Your task to perform on an android device: turn smart compose on in the gmail app Image 0: 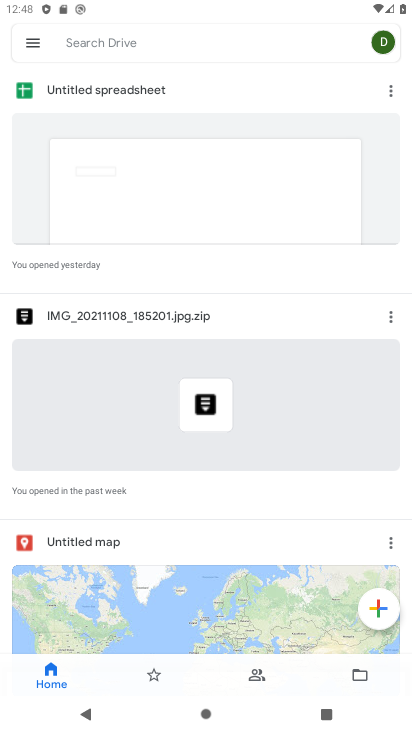
Step 0: press home button
Your task to perform on an android device: turn smart compose on in the gmail app Image 1: 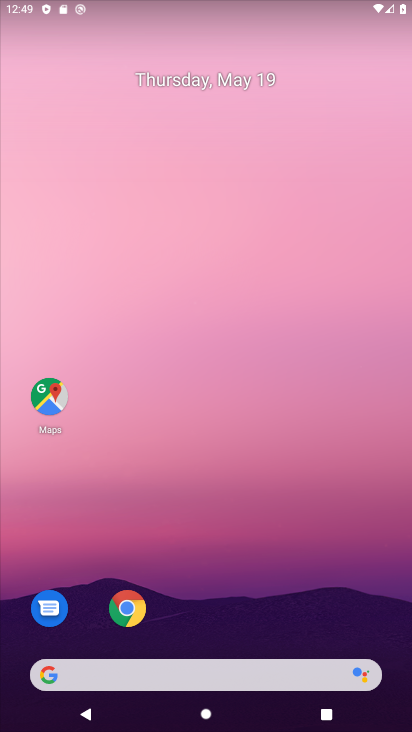
Step 1: drag from (212, 566) to (320, 13)
Your task to perform on an android device: turn smart compose on in the gmail app Image 2: 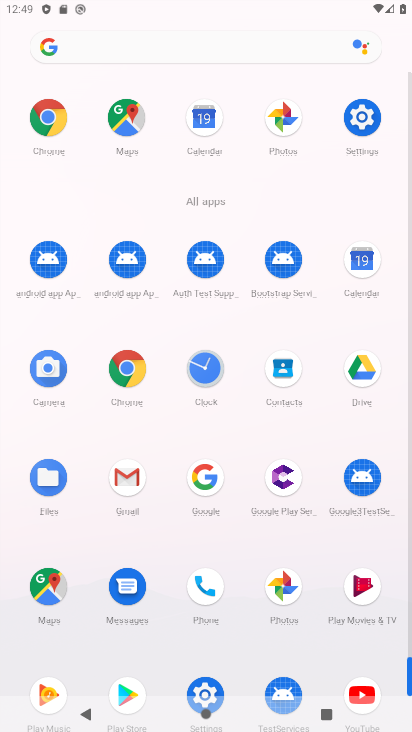
Step 2: click (138, 480)
Your task to perform on an android device: turn smart compose on in the gmail app Image 3: 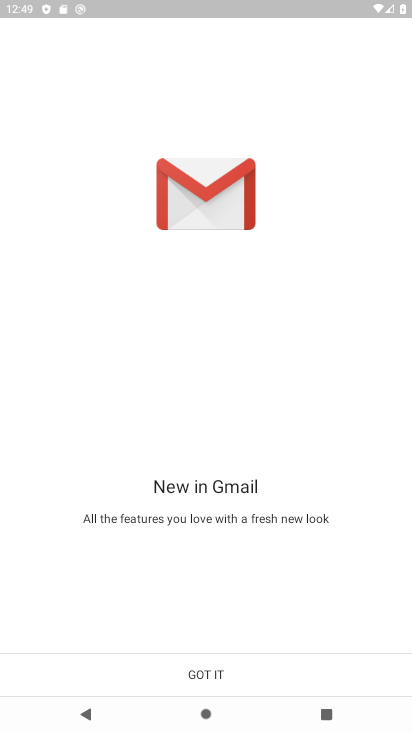
Step 3: click (228, 669)
Your task to perform on an android device: turn smart compose on in the gmail app Image 4: 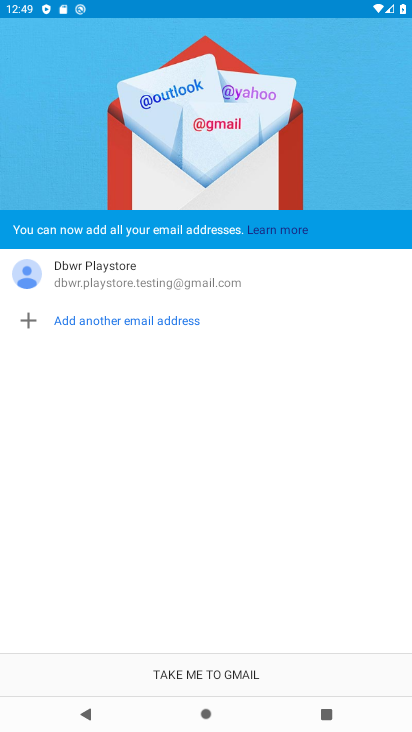
Step 4: click (229, 670)
Your task to perform on an android device: turn smart compose on in the gmail app Image 5: 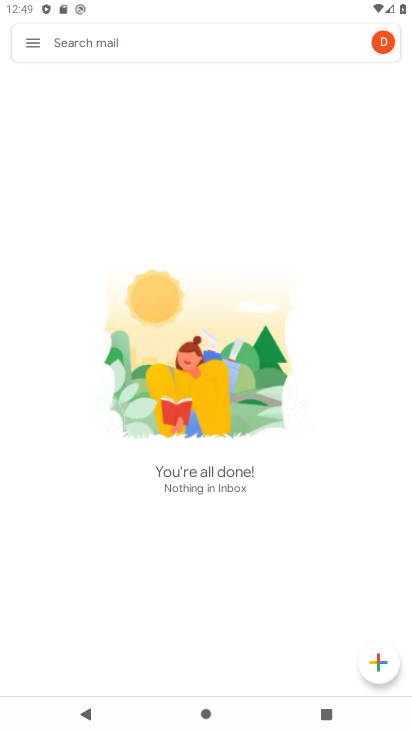
Step 5: click (33, 50)
Your task to perform on an android device: turn smart compose on in the gmail app Image 6: 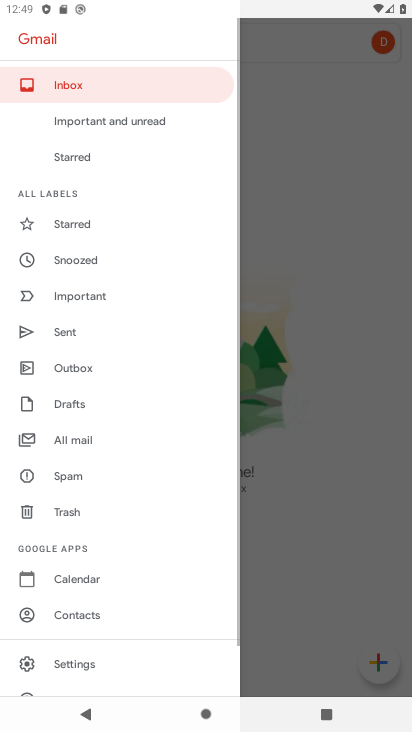
Step 6: drag from (81, 606) to (147, 248)
Your task to perform on an android device: turn smart compose on in the gmail app Image 7: 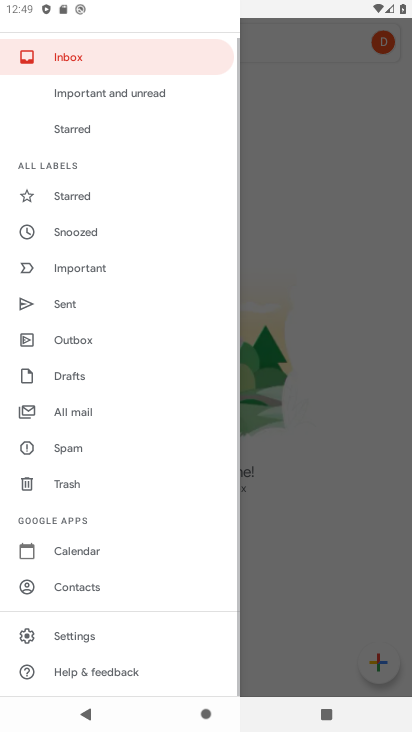
Step 7: click (92, 639)
Your task to perform on an android device: turn smart compose on in the gmail app Image 8: 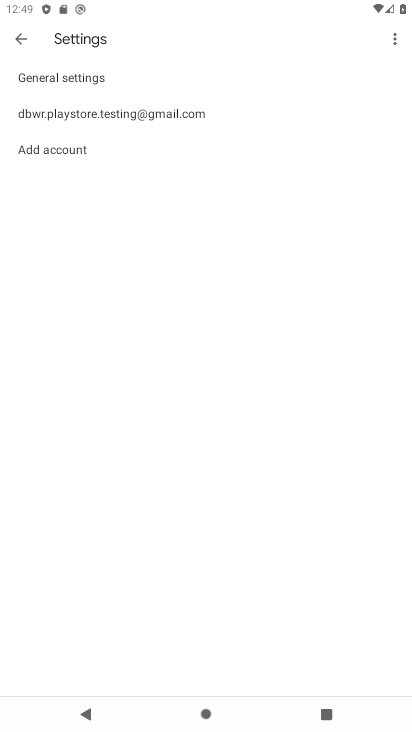
Step 8: click (128, 110)
Your task to perform on an android device: turn smart compose on in the gmail app Image 9: 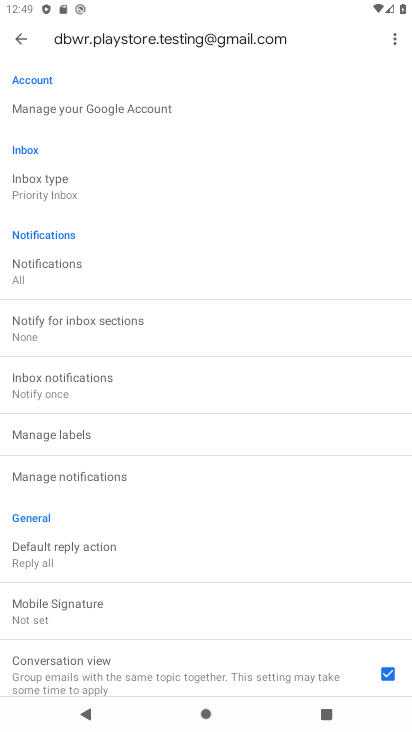
Step 9: task complete